Your task to perform on an android device: change timer sound Image 0: 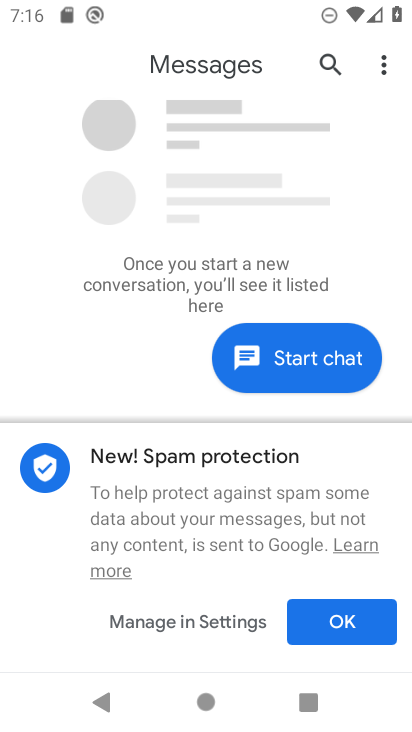
Step 0: press home button
Your task to perform on an android device: change timer sound Image 1: 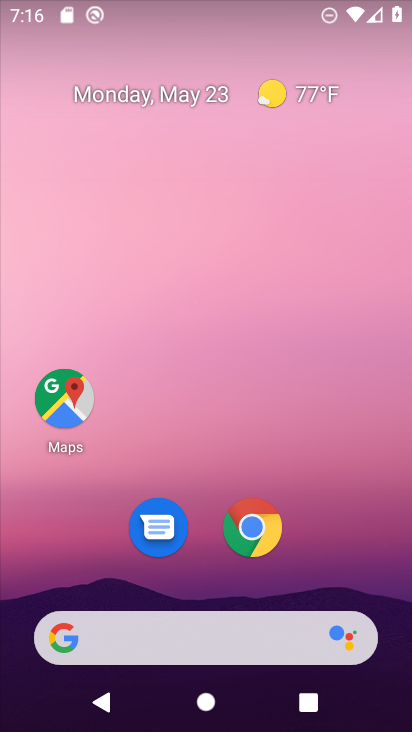
Step 1: drag from (255, 669) to (168, 165)
Your task to perform on an android device: change timer sound Image 2: 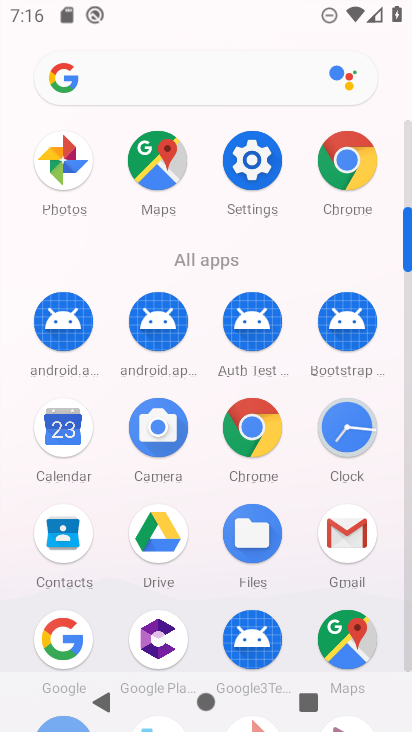
Step 2: click (341, 434)
Your task to perform on an android device: change timer sound Image 3: 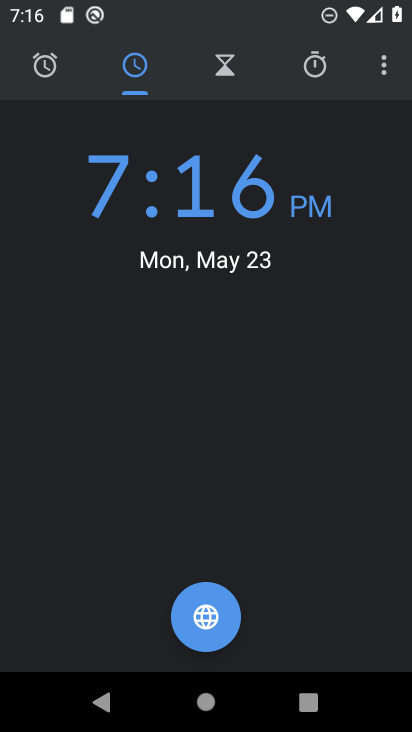
Step 3: click (374, 75)
Your task to perform on an android device: change timer sound Image 4: 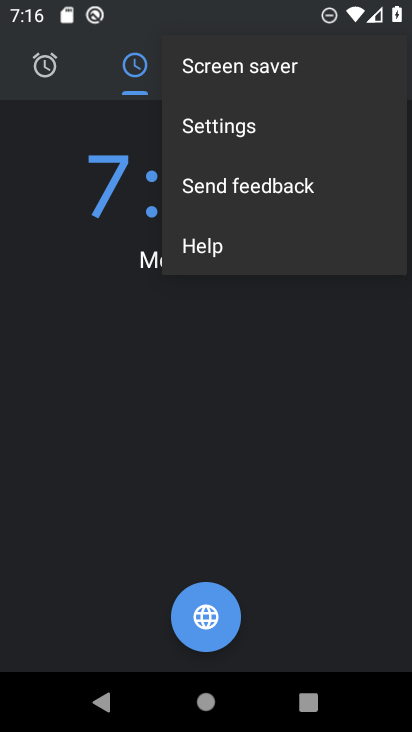
Step 4: click (255, 142)
Your task to perform on an android device: change timer sound Image 5: 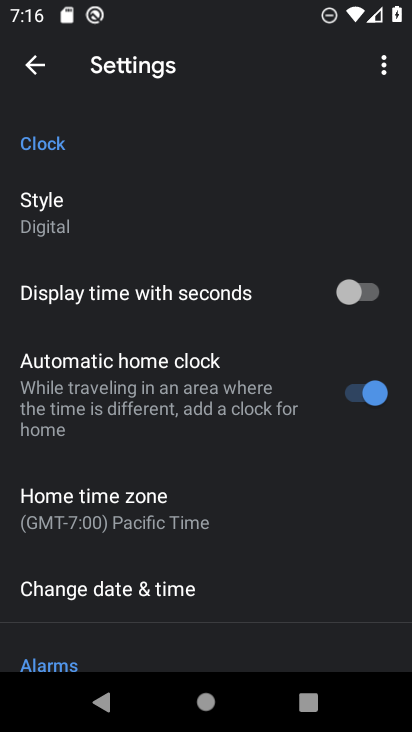
Step 5: drag from (155, 496) to (173, 367)
Your task to perform on an android device: change timer sound Image 6: 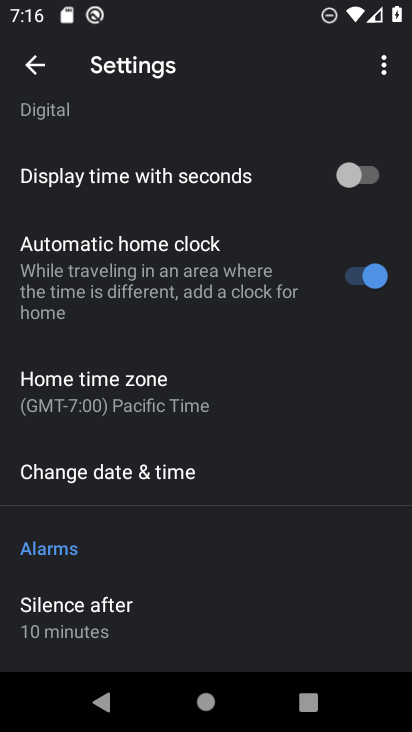
Step 6: drag from (212, 511) to (259, 168)
Your task to perform on an android device: change timer sound Image 7: 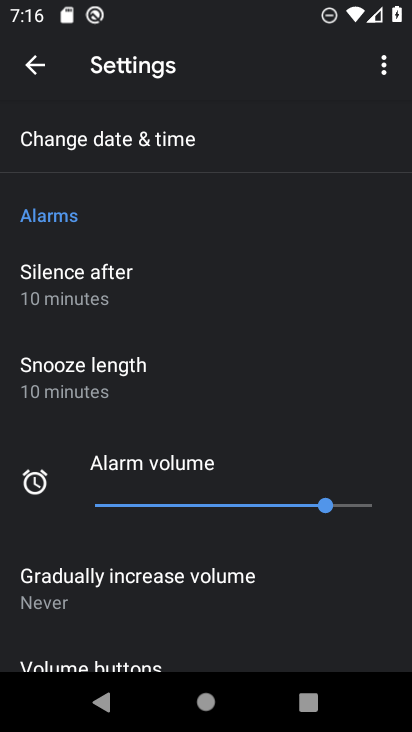
Step 7: drag from (215, 339) to (282, 5)
Your task to perform on an android device: change timer sound Image 8: 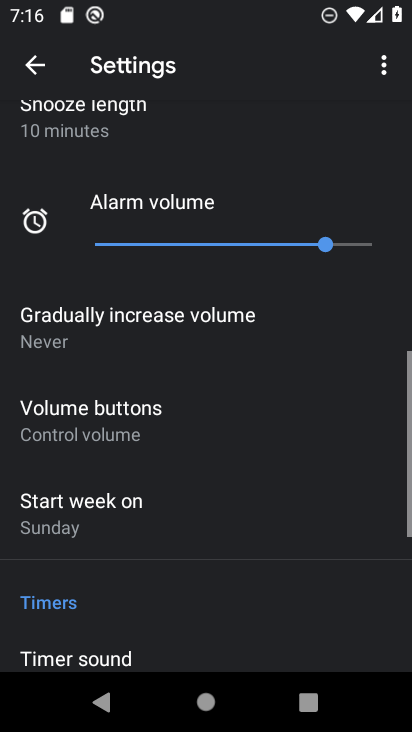
Step 8: drag from (288, 484) to (360, 178)
Your task to perform on an android device: change timer sound Image 9: 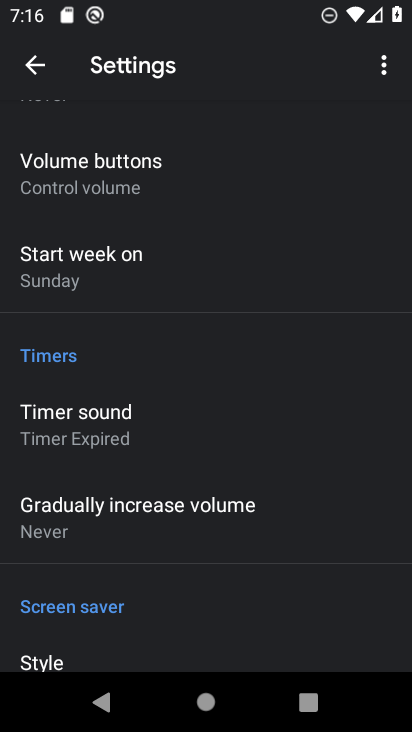
Step 9: click (129, 438)
Your task to perform on an android device: change timer sound Image 10: 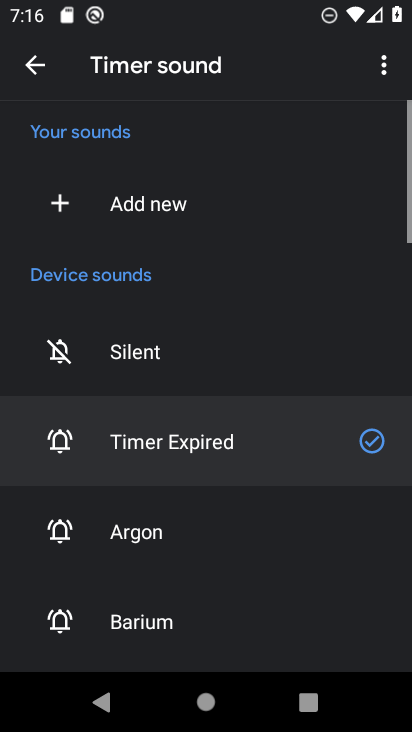
Step 10: click (177, 533)
Your task to perform on an android device: change timer sound Image 11: 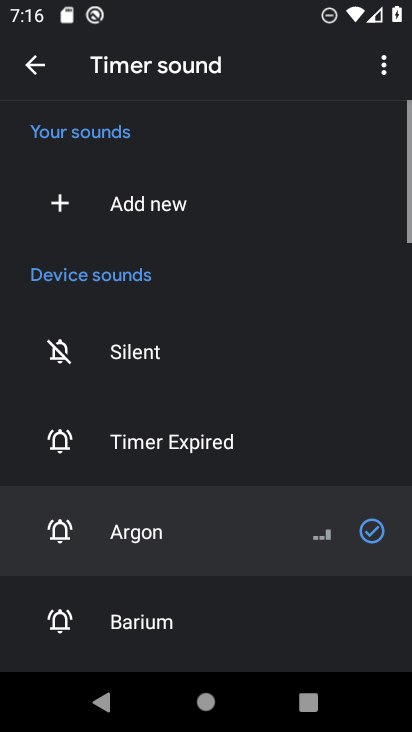
Step 11: task complete